Your task to perform on an android device: set default search engine in the chrome app Image 0: 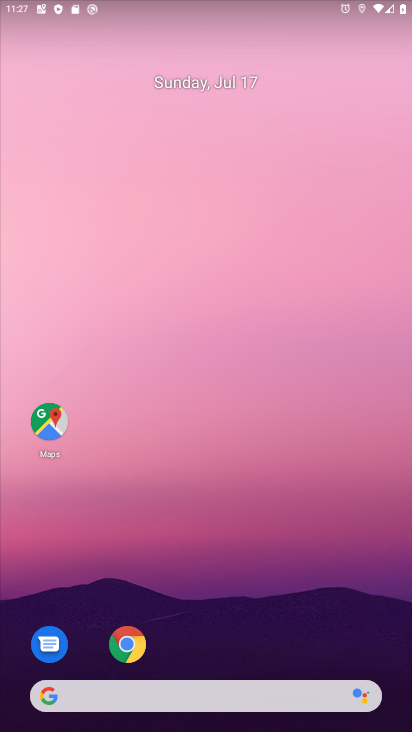
Step 0: click (249, 84)
Your task to perform on an android device: set default search engine in the chrome app Image 1: 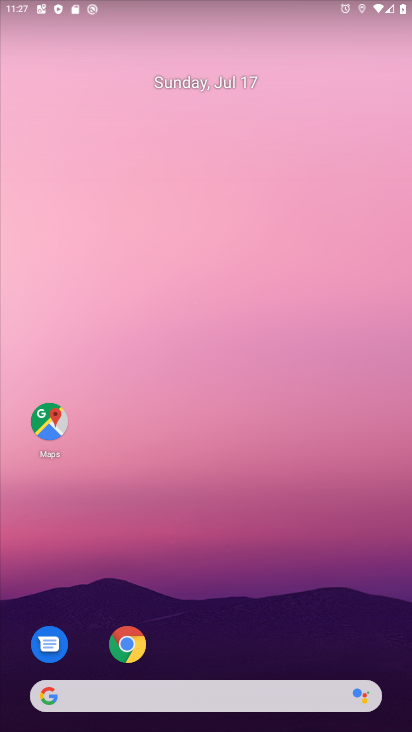
Step 1: drag from (305, 674) to (317, 114)
Your task to perform on an android device: set default search engine in the chrome app Image 2: 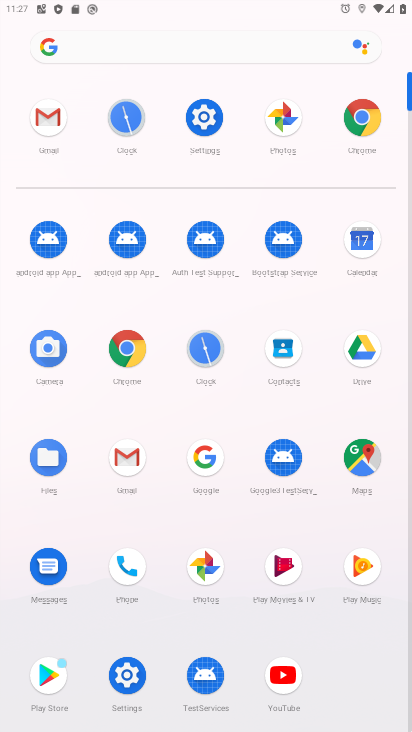
Step 2: click (365, 119)
Your task to perform on an android device: set default search engine in the chrome app Image 3: 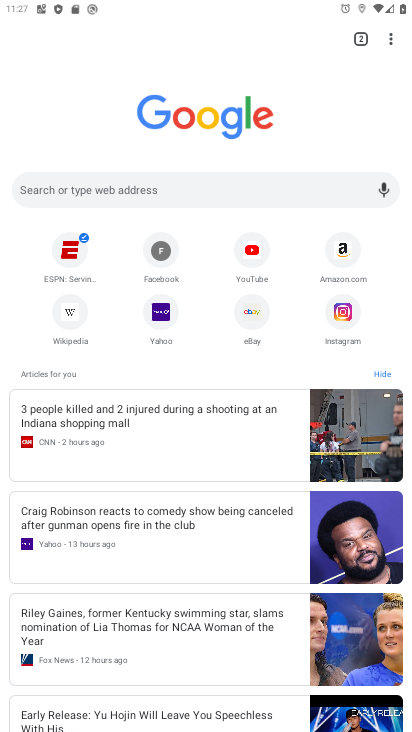
Step 3: drag from (396, 36) to (275, 321)
Your task to perform on an android device: set default search engine in the chrome app Image 4: 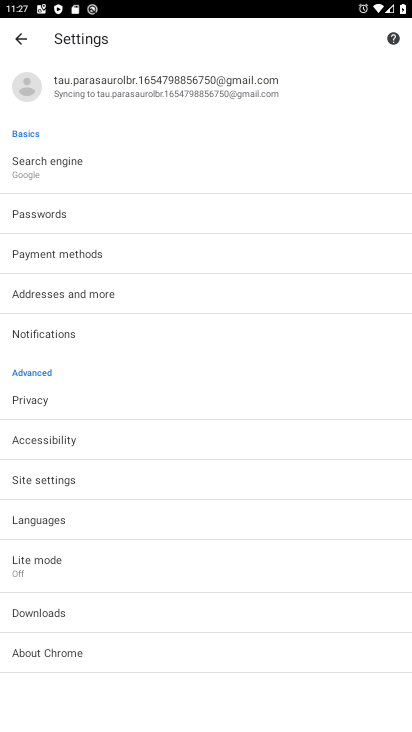
Step 4: click (62, 164)
Your task to perform on an android device: set default search engine in the chrome app Image 5: 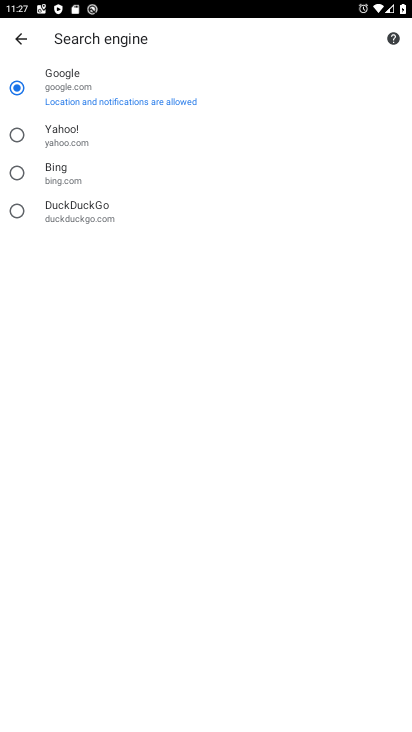
Step 5: task complete